Your task to perform on an android device: change alarm snooze length Image 0: 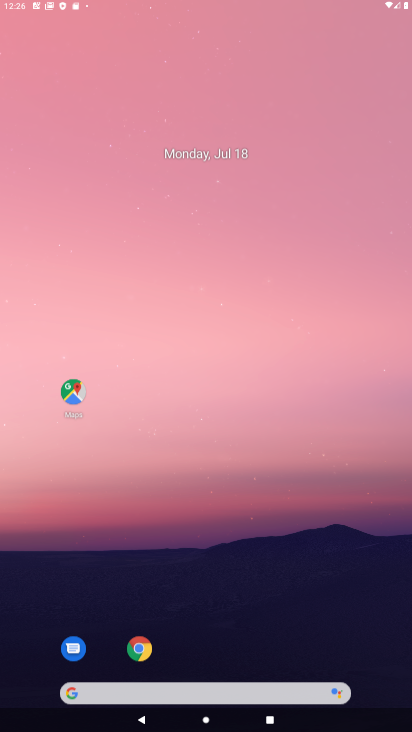
Step 0: press home button
Your task to perform on an android device: change alarm snooze length Image 1: 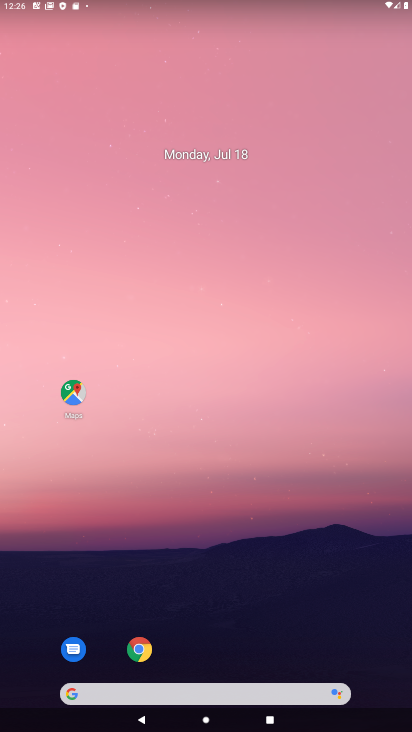
Step 1: drag from (372, 656) to (347, 150)
Your task to perform on an android device: change alarm snooze length Image 2: 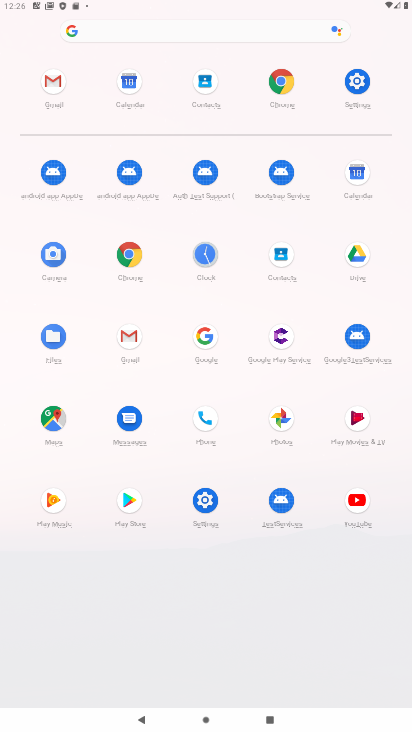
Step 2: click (204, 255)
Your task to perform on an android device: change alarm snooze length Image 3: 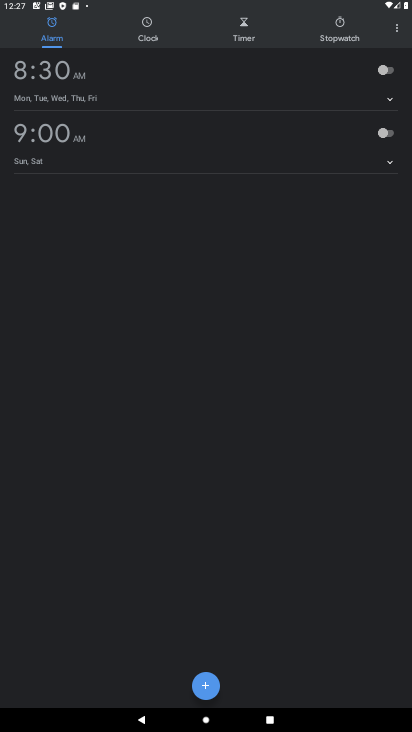
Step 3: click (399, 35)
Your task to perform on an android device: change alarm snooze length Image 4: 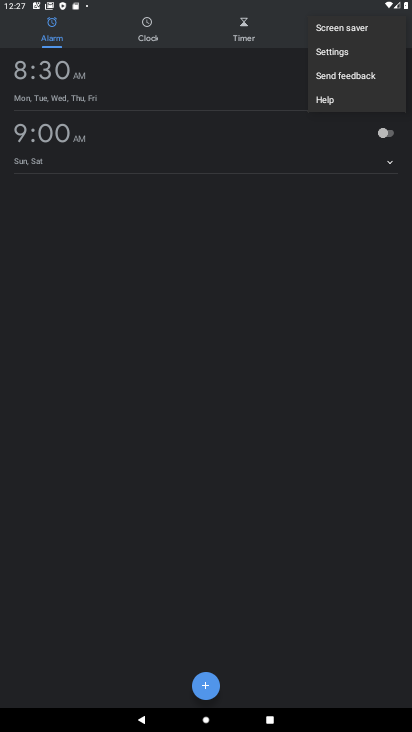
Step 4: click (332, 51)
Your task to perform on an android device: change alarm snooze length Image 5: 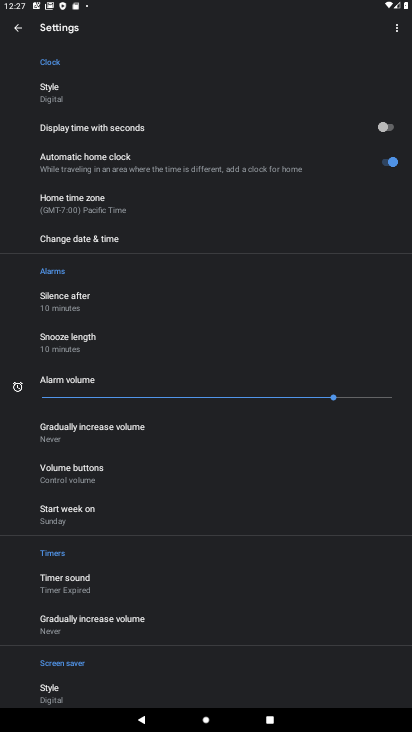
Step 5: click (67, 347)
Your task to perform on an android device: change alarm snooze length Image 6: 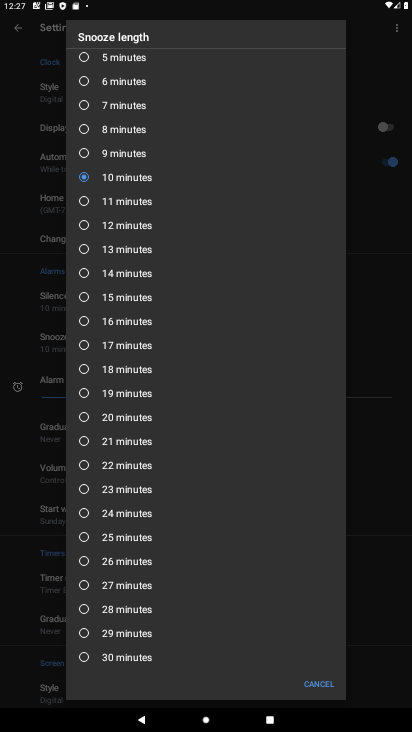
Step 6: click (87, 297)
Your task to perform on an android device: change alarm snooze length Image 7: 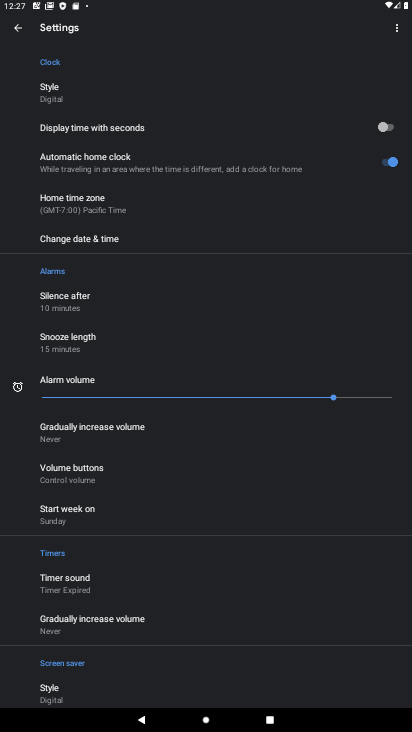
Step 7: task complete